Your task to perform on an android device: Find coffee shops on Maps Image 0: 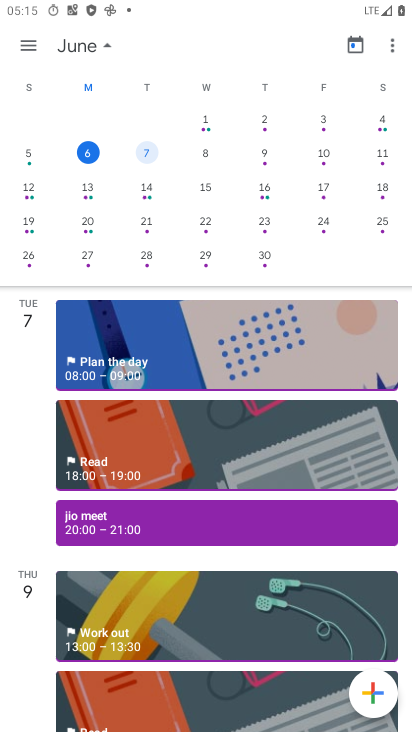
Step 0: press home button
Your task to perform on an android device: Find coffee shops on Maps Image 1: 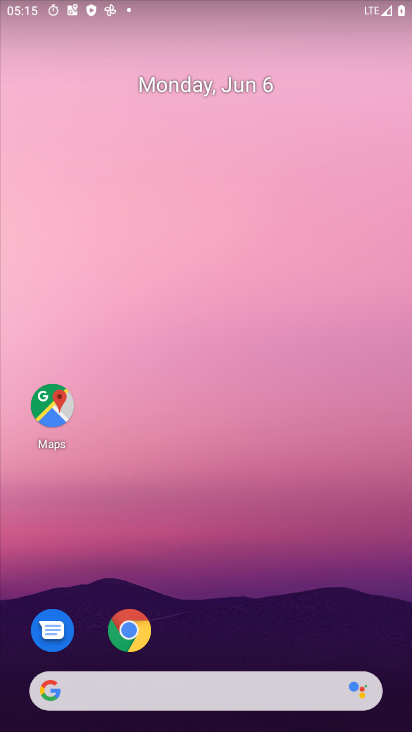
Step 1: drag from (239, 634) to (401, 15)
Your task to perform on an android device: Find coffee shops on Maps Image 2: 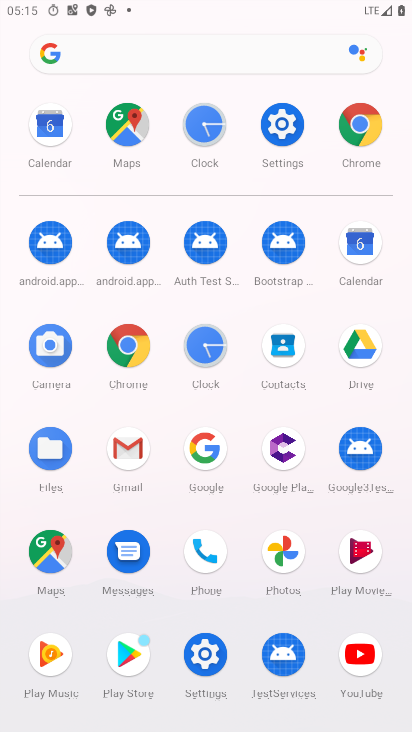
Step 2: click (40, 555)
Your task to perform on an android device: Find coffee shops on Maps Image 3: 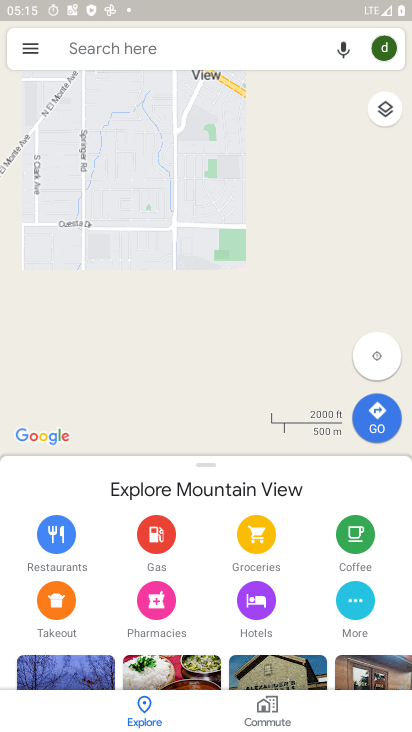
Step 3: click (196, 35)
Your task to perform on an android device: Find coffee shops on Maps Image 4: 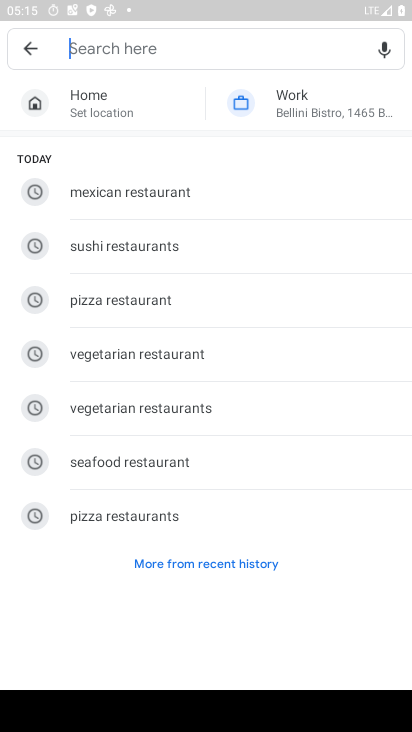
Step 4: type "coffee shops"
Your task to perform on an android device: Find coffee shops on Maps Image 5: 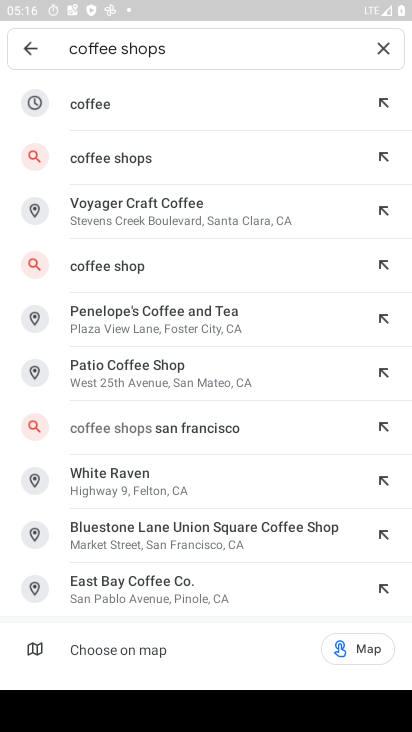
Step 5: click (141, 159)
Your task to perform on an android device: Find coffee shops on Maps Image 6: 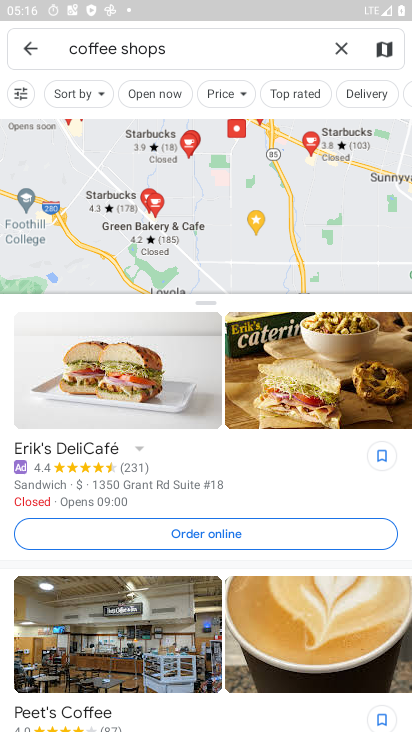
Step 6: task complete